Your task to perform on an android device: What's the weather today? Image 0: 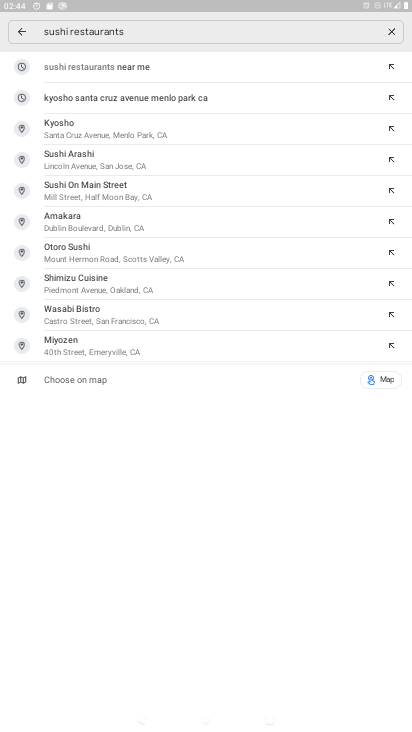
Step 0: press home button
Your task to perform on an android device: What's the weather today? Image 1: 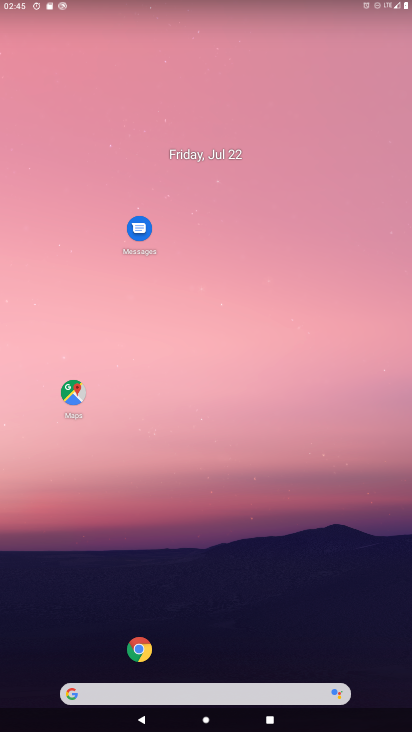
Step 1: click (124, 689)
Your task to perform on an android device: What's the weather today? Image 2: 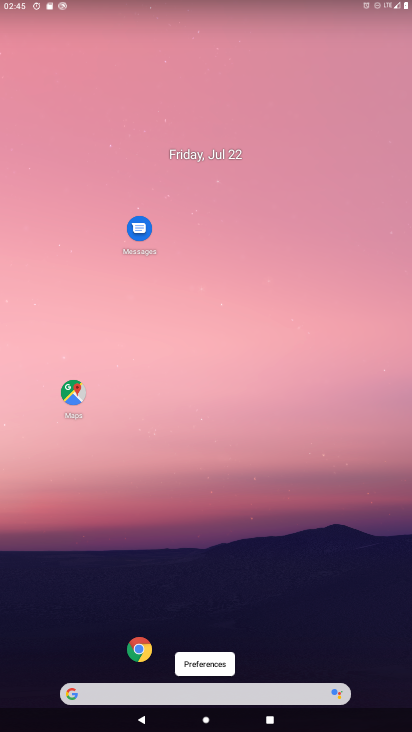
Step 2: click (104, 690)
Your task to perform on an android device: What's the weather today? Image 3: 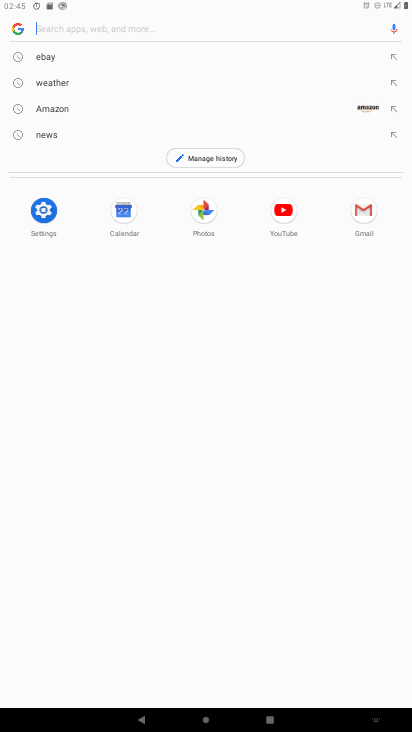
Step 3: type "What's the weather today?"
Your task to perform on an android device: What's the weather today? Image 4: 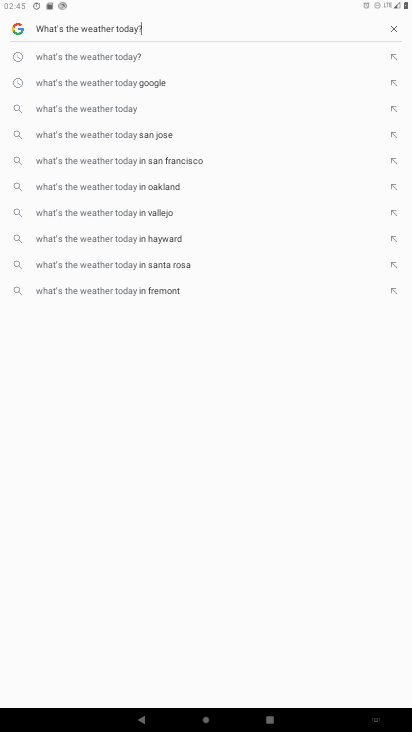
Step 4: type ""
Your task to perform on an android device: What's the weather today? Image 5: 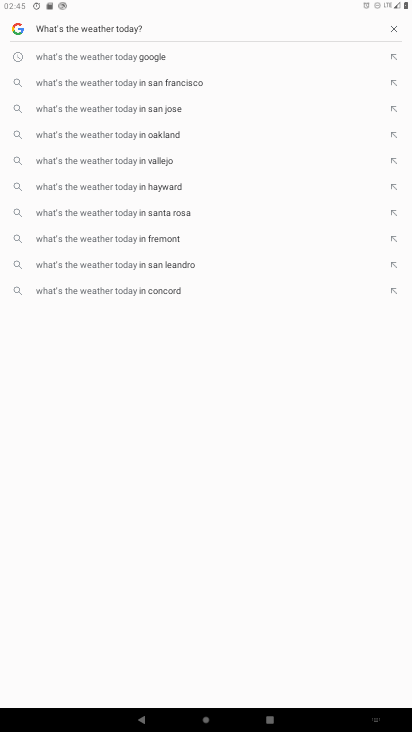
Step 5: task complete